Your task to perform on an android device: toggle priority inbox in the gmail app Image 0: 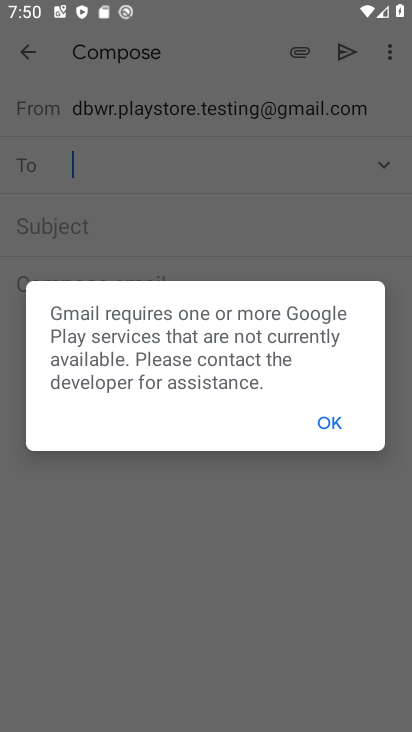
Step 0: press home button
Your task to perform on an android device: toggle priority inbox in the gmail app Image 1: 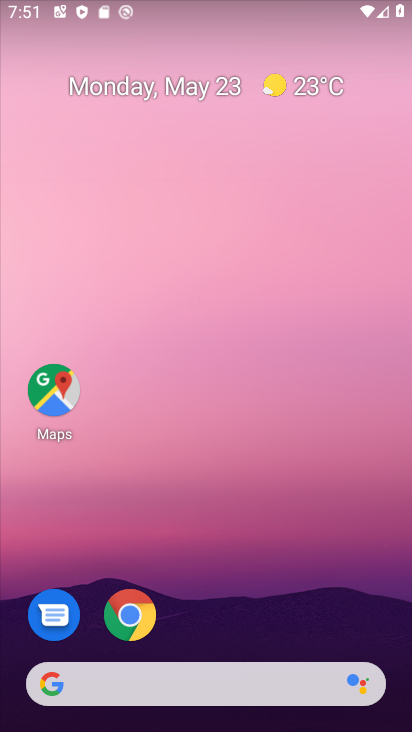
Step 1: drag from (274, 561) to (207, 3)
Your task to perform on an android device: toggle priority inbox in the gmail app Image 2: 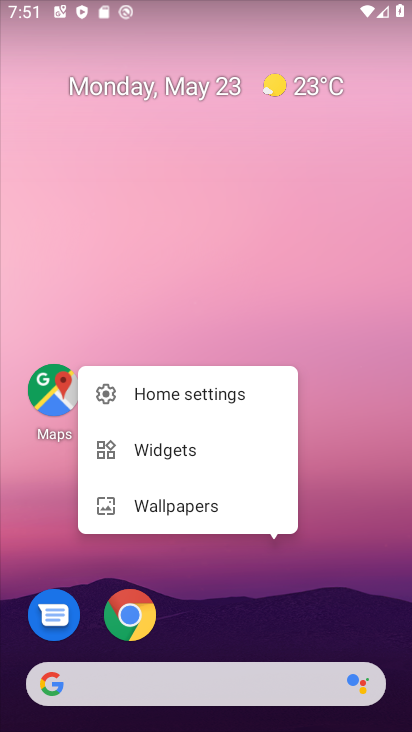
Step 2: drag from (306, 628) to (218, 27)
Your task to perform on an android device: toggle priority inbox in the gmail app Image 3: 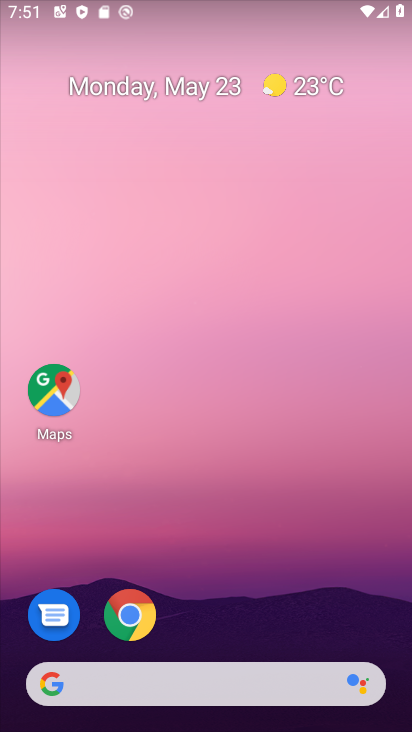
Step 3: drag from (264, 600) to (334, 251)
Your task to perform on an android device: toggle priority inbox in the gmail app Image 4: 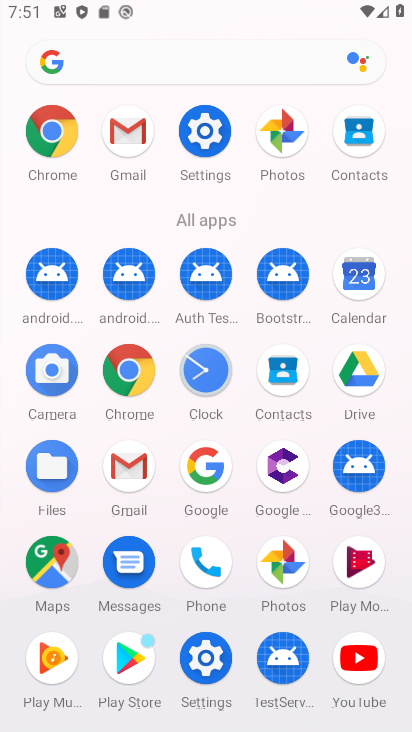
Step 4: click (145, 476)
Your task to perform on an android device: toggle priority inbox in the gmail app Image 5: 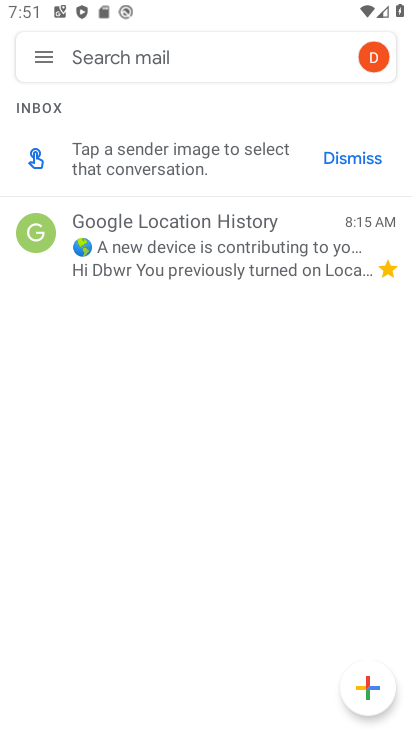
Step 5: click (40, 61)
Your task to perform on an android device: toggle priority inbox in the gmail app Image 6: 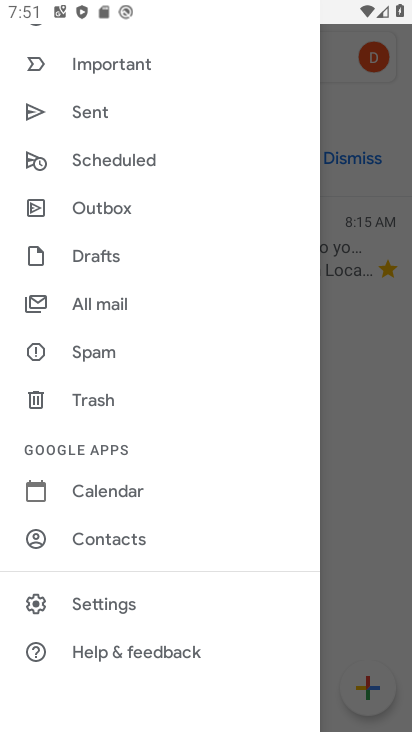
Step 6: click (99, 604)
Your task to perform on an android device: toggle priority inbox in the gmail app Image 7: 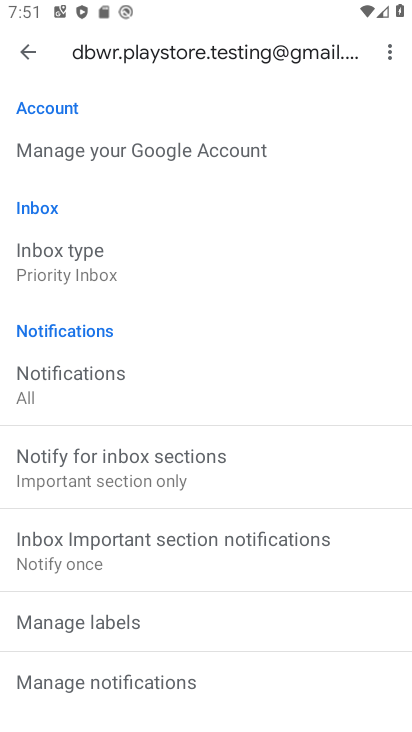
Step 7: click (57, 278)
Your task to perform on an android device: toggle priority inbox in the gmail app Image 8: 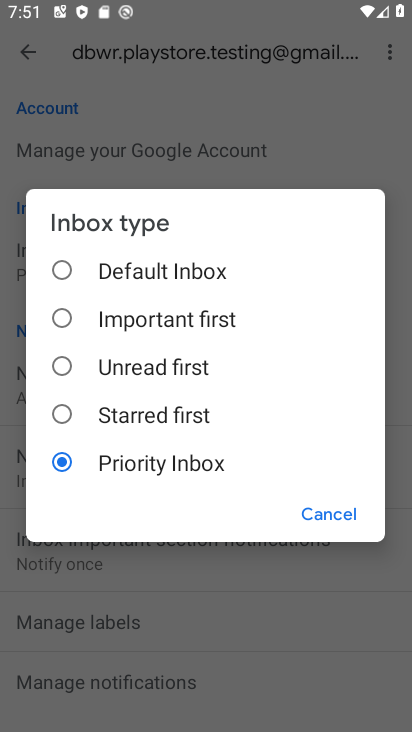
Step 8: click (62, 275)
Your task to perform on an android device: toggle priority inbox in the gmail app Image 9: 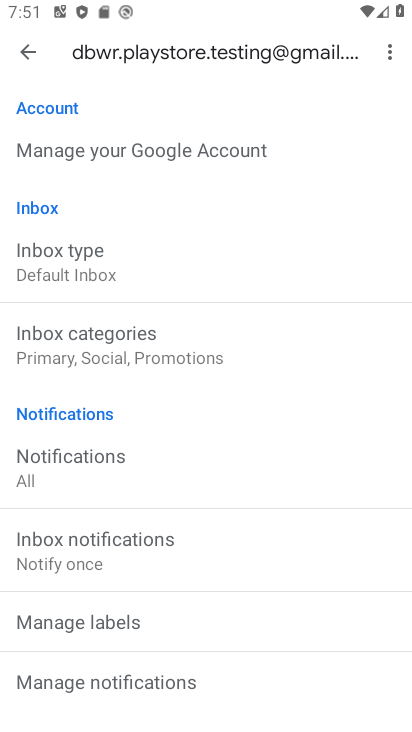
Step 9: task complete